Your task to perform on an android device: Go to ESPN.com Image 0: 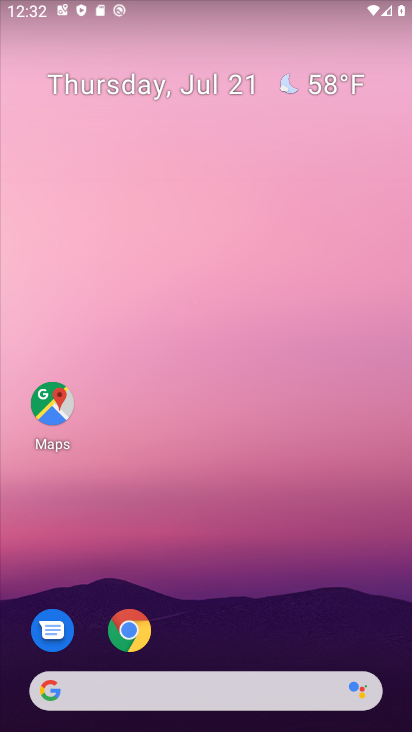
Step 0: drag from (250, 644) to (273, 123)
Your task to perform on an android device: Go to ESPN.com Image 1: 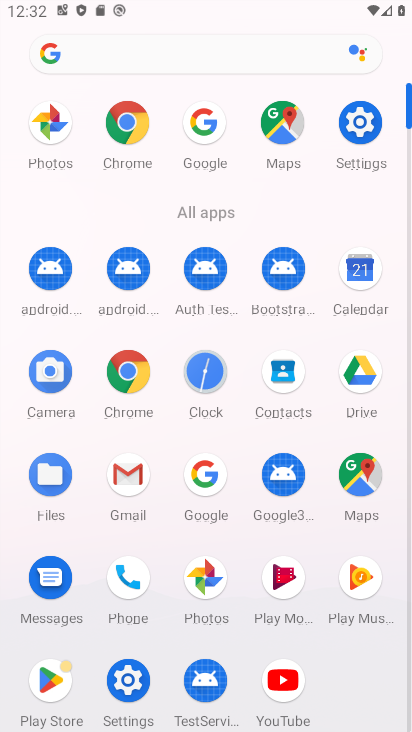
Step 1: click (206, 472)
Your task to perform on an android device: Go to ESPN.com Image 2: 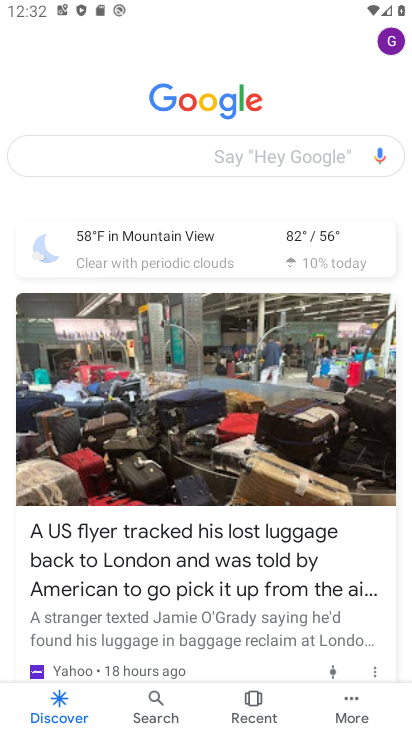
Step 2: click (181, 148)
Your task to perform on an android device: Go to ESPN.com Image 3: 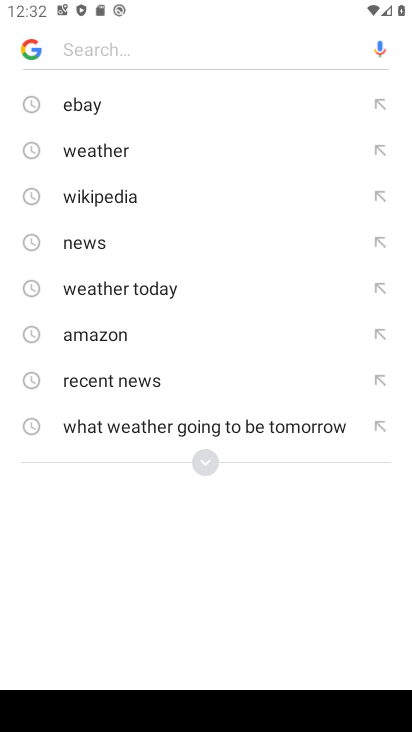
Step 3: type "espn.com"
Your task to perform on an android device: Go to ESPN.com Image 4: 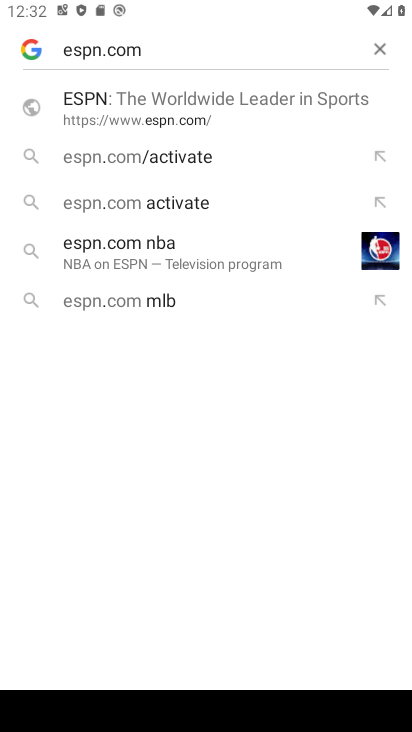
Step 4: click (158, 111)
Your task to perform on an android device: Go to ESPN.com Image 5: 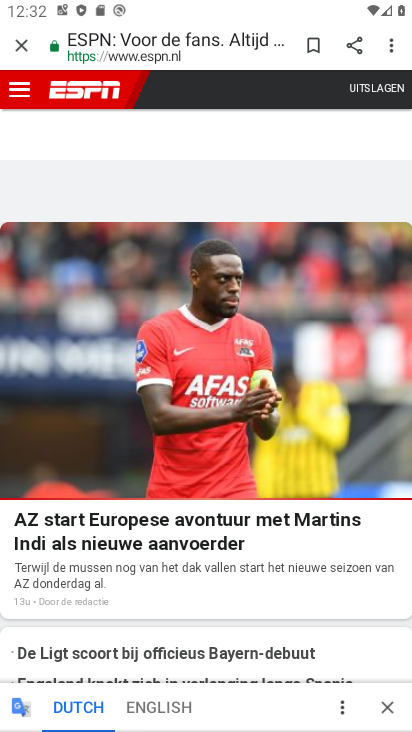
Step 5: task complete